Your task to perform on an android device: Find a good burger place on Maps Image 0: 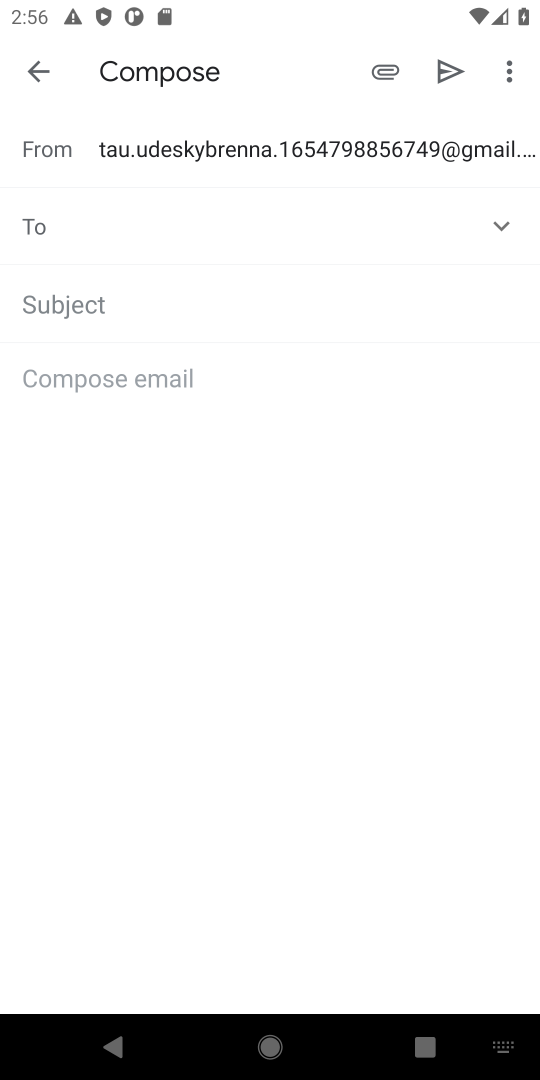
Step 0: press home button
Your task to perform on an android device: Find a good burger place on Maps Image 1: 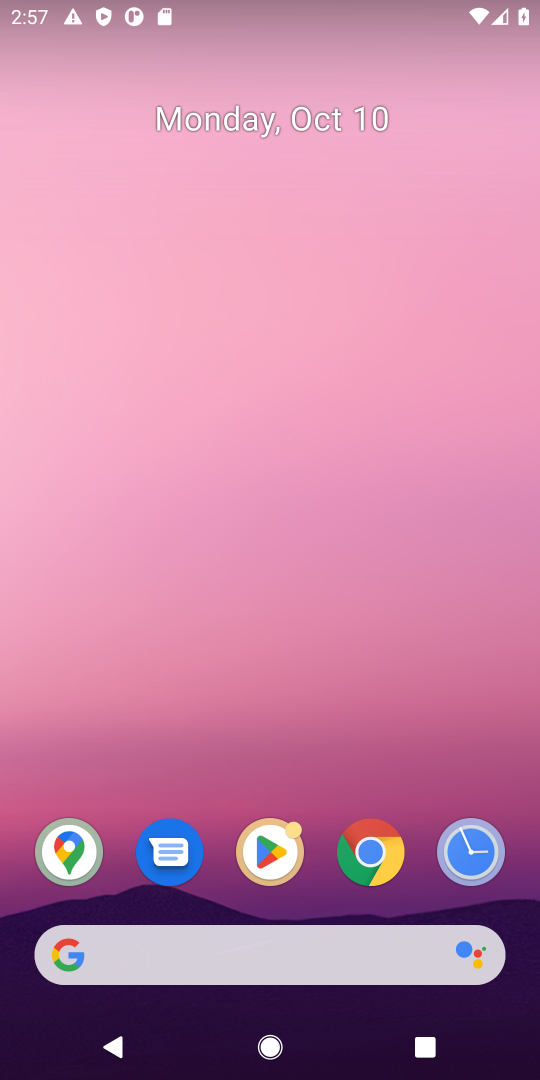
Step 1: click (61, 842)
Your task to perform on an android device: Find a good burger place on Maps Image 2: 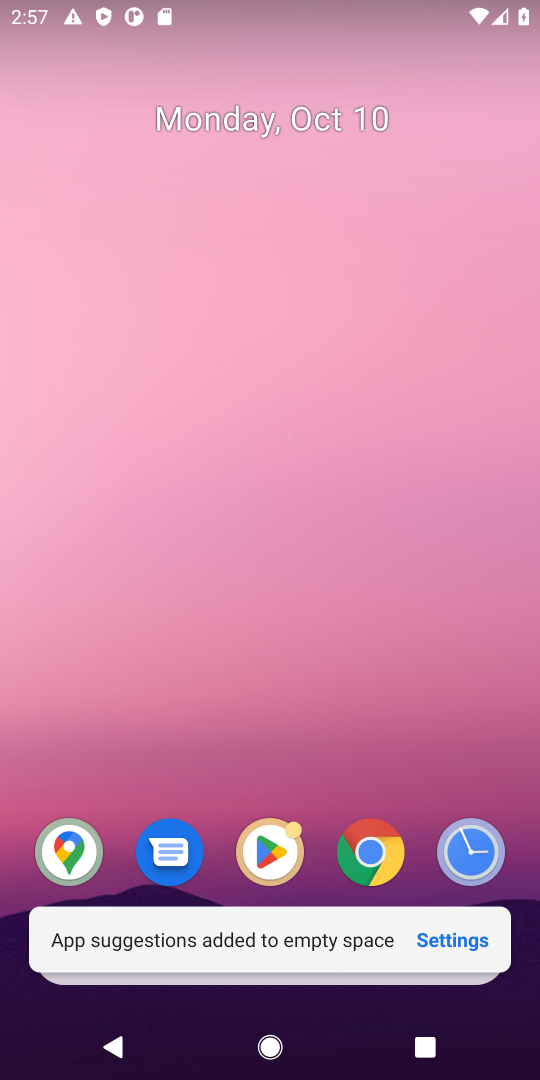
Step 2: click (84, 845)
Your task to perform on an android device: Find a good burger place on Maps Image 3: 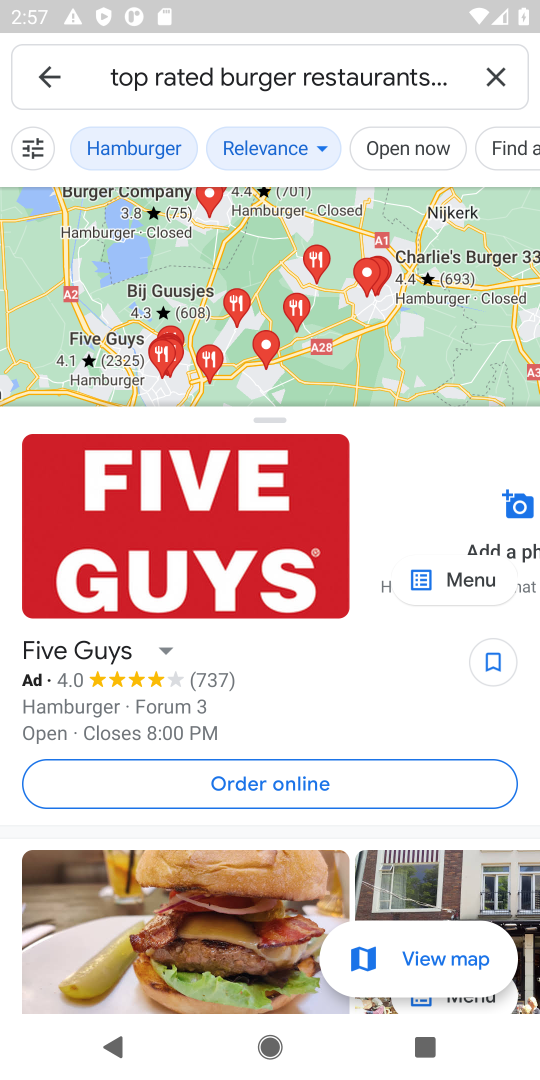
Step 3: click (492, 75)
Your task to perform on an android device: Find a good burger place on Maps Image 4: 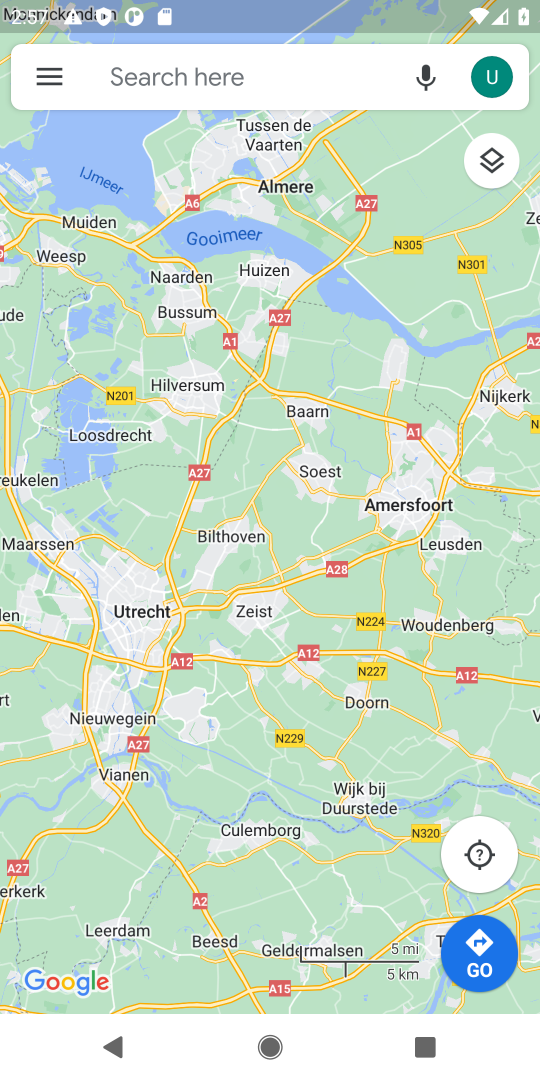
Step 4: click (321, 76)
Your task to perform on an android device: Find a good burger place on Maps Image 5: 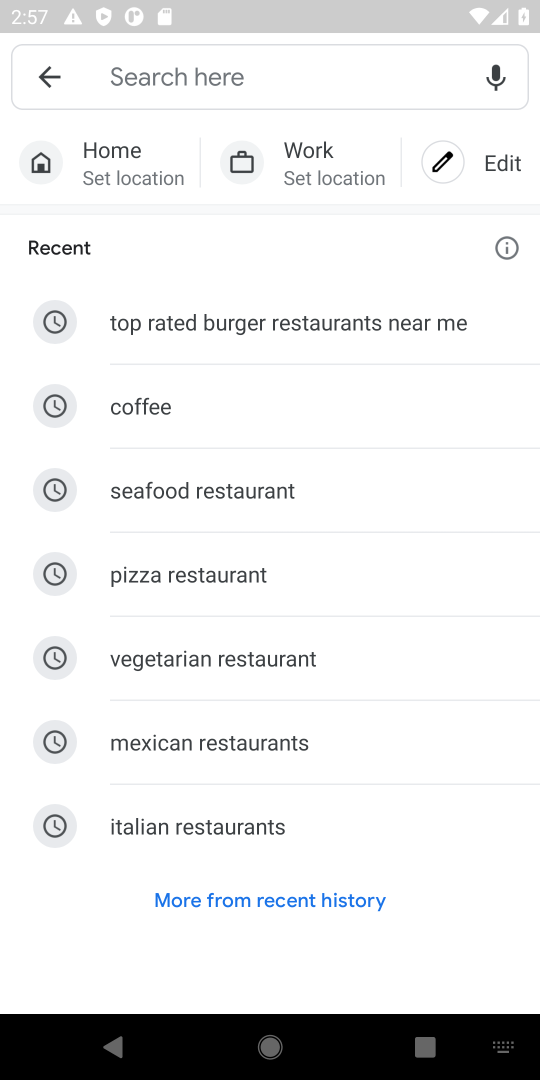
Step 5: type "good burger place"
Your task to perform on an android device: Find a good burger place on Maps Image 6: 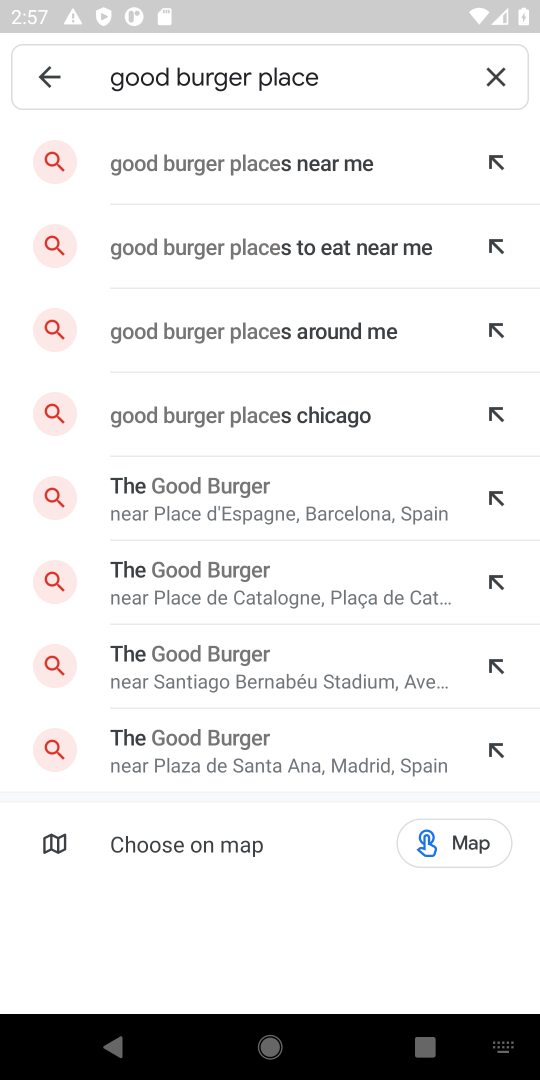
Step 6: click (348, 176)
Your task to perform on an android device: Find a good burger place on Maps Image 7: 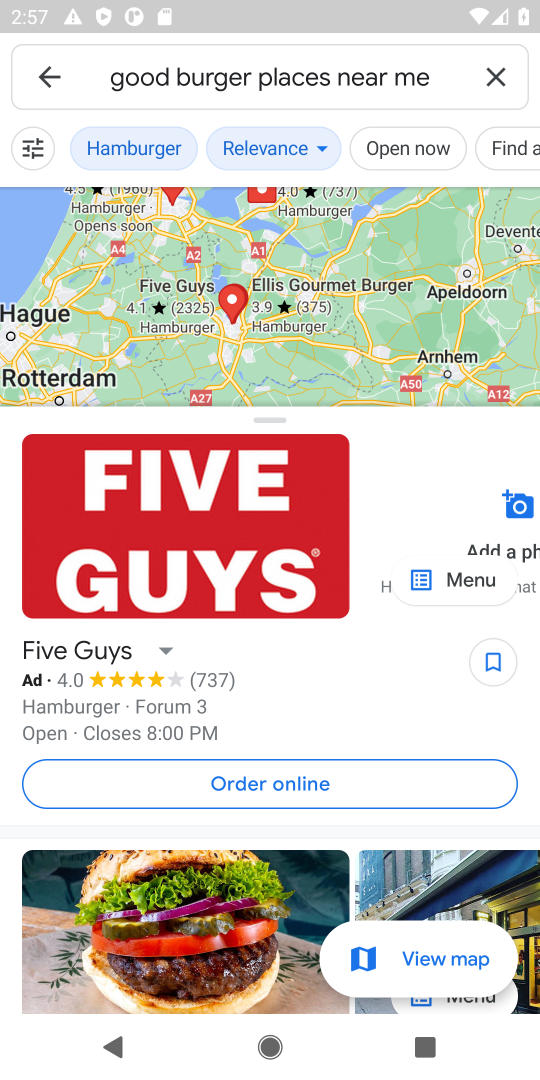
Step 7: task complete